Your task to perform on an android device: Check the weather Image 0: 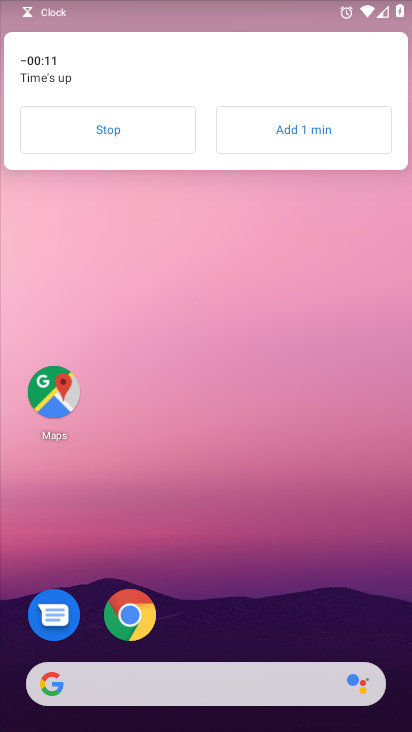
Step 0: click (215, 180)
Your task to perform on an android device: Check the weather Image 1: 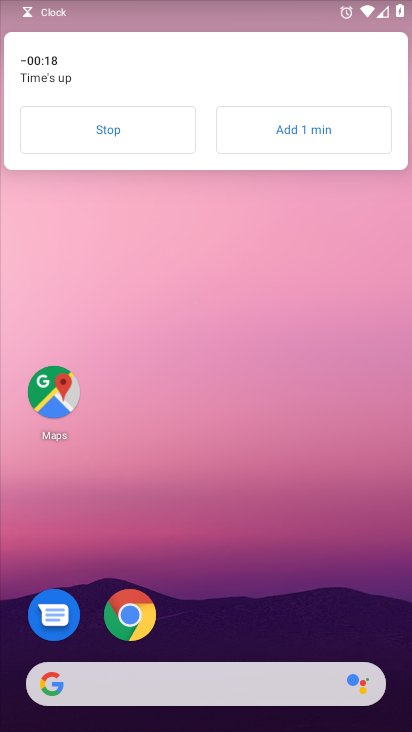
Step 1: drag from (215, 648) to (207, 256)
Your task to perform on an android device: Check the weather Image 2: 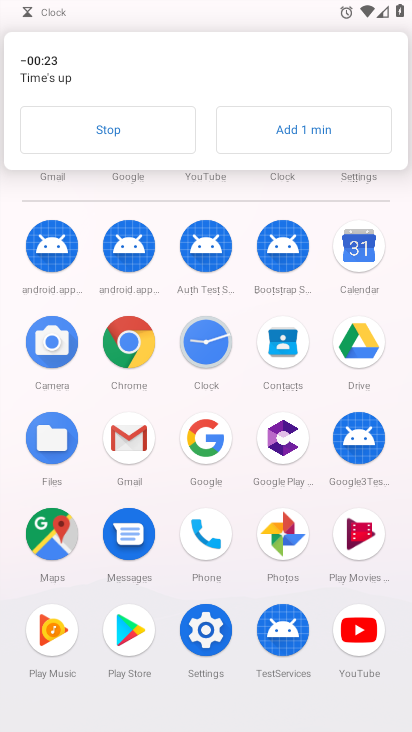
Step 2: click (195, 436)
Your task to perform on an android device: Check the weather Image 3: 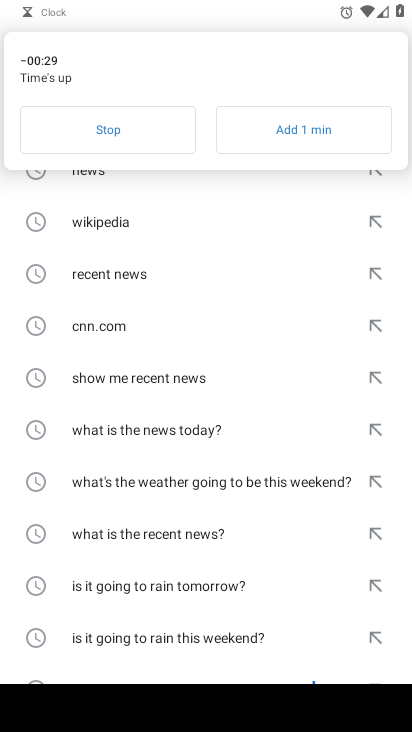
Step 3: click (119, 134)
Your task to perform on an android device: Check the weather Image 4: 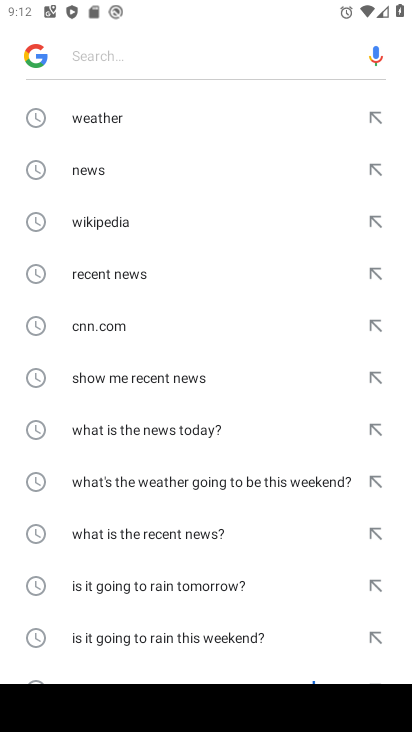
Step 4: click (149, 122)
Your task to perform on an android device: Check the weather Image 5: 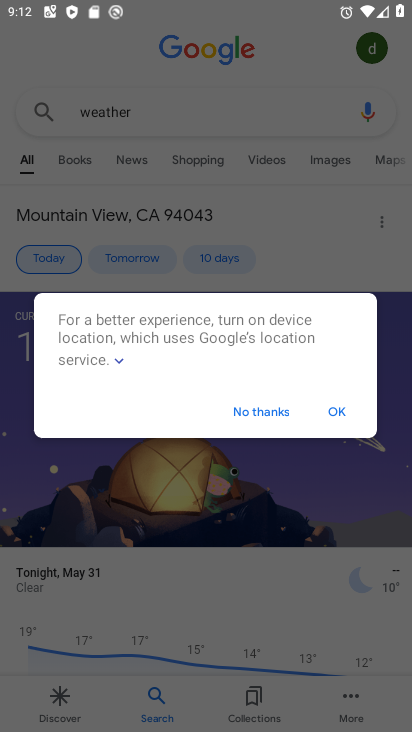
Step 5: click (330, 409)
Your task to perform on an android device: Check the weather Image 6: 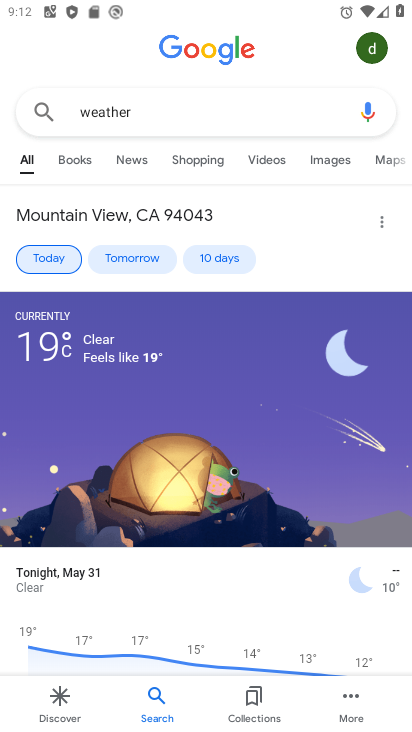
Step 6: task complete